Your task to perform on an android device: Do I have any events today? Image 0: 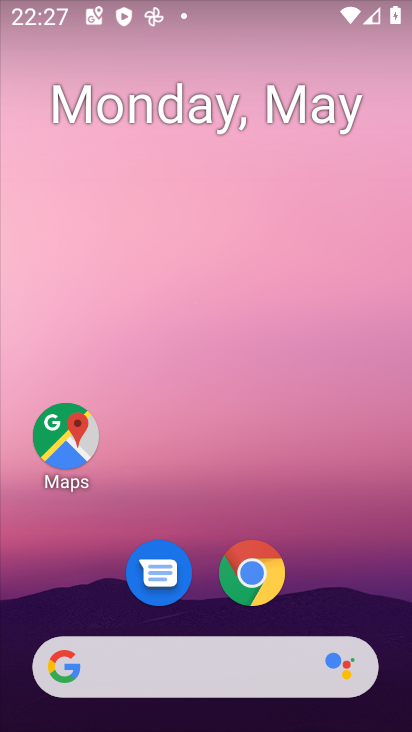
Step 0: drag from (337, 571) to (182, 153)
Your task to perform on an android device: Do I have any events today? Image 1: 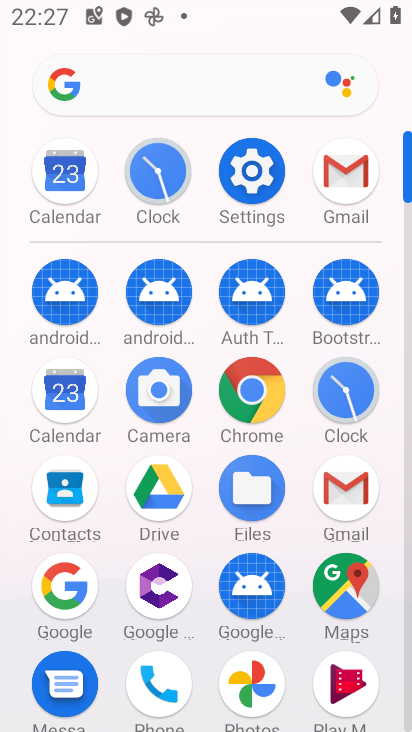
Step 1: click (78, 404)
Your task to perform on an android device: Do I have any events today? Image 2: 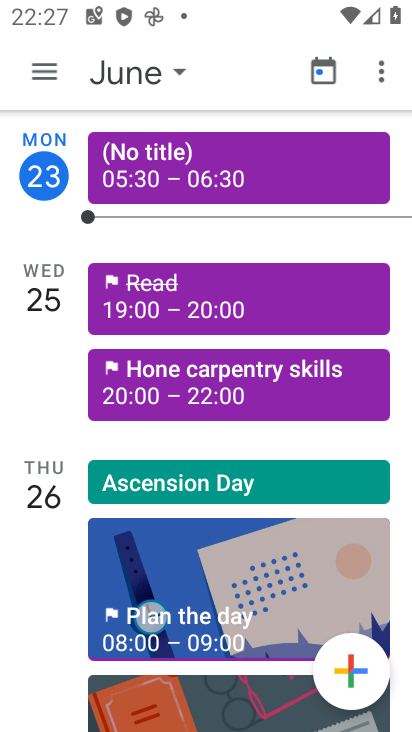
Step 2: task complete